Your task to perform on an android device: show emergency info Image 0: 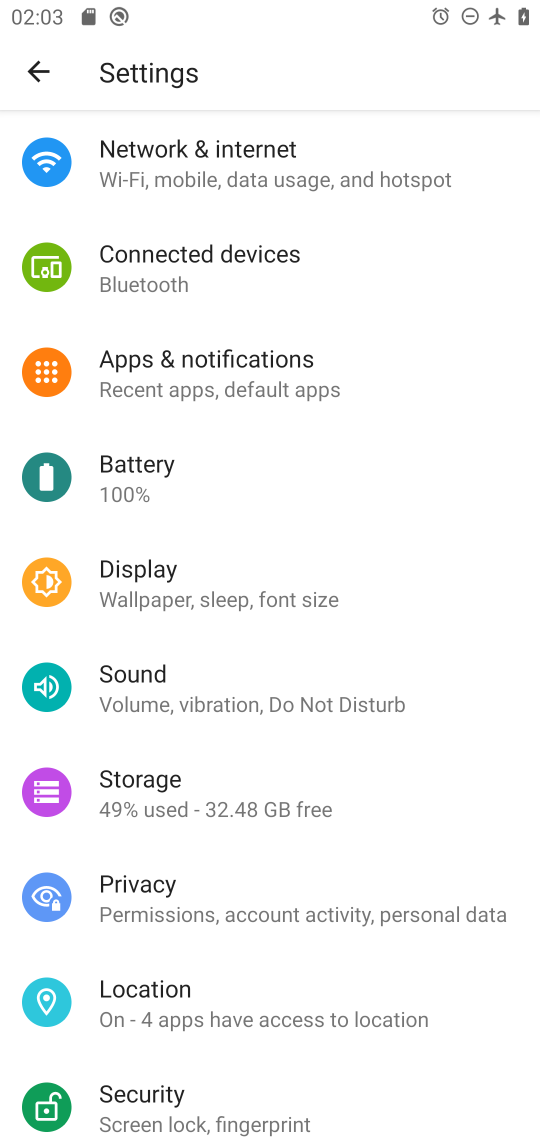
Step 0: drag from (296, 864) to (385, 7)
Your task to perform on an android device: show emergency info Image 1: 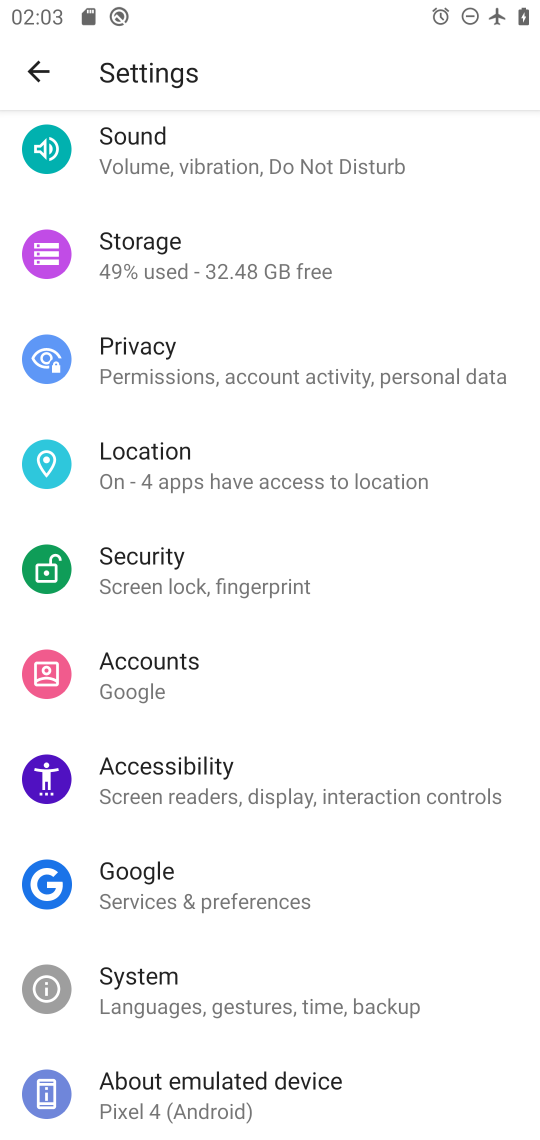
Step 1: click (275, 1082)
Your task to perform on an android device: show emergency info Image 2: 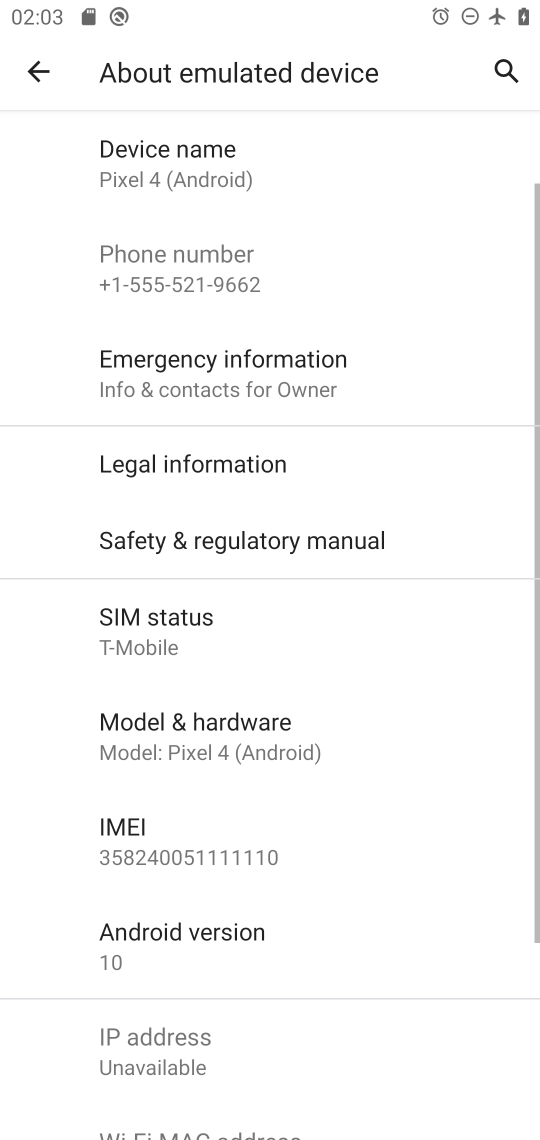
Step 2: click (288, 372)
Your task to perform on an android device: show emergency info Image 3: 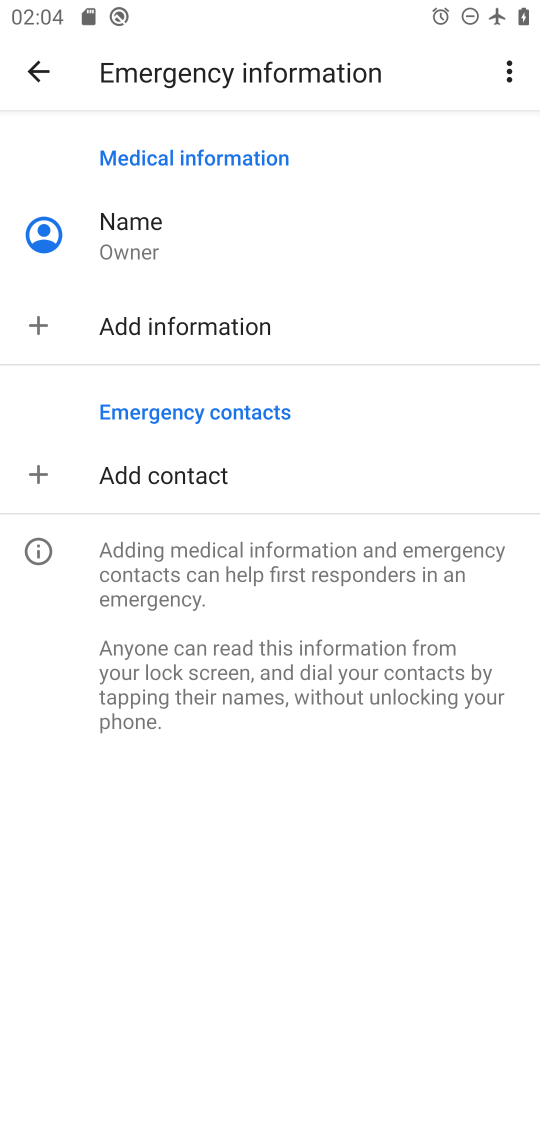
Step 3: task complete